Your task to perform on an android device: change timer sound Image 0: 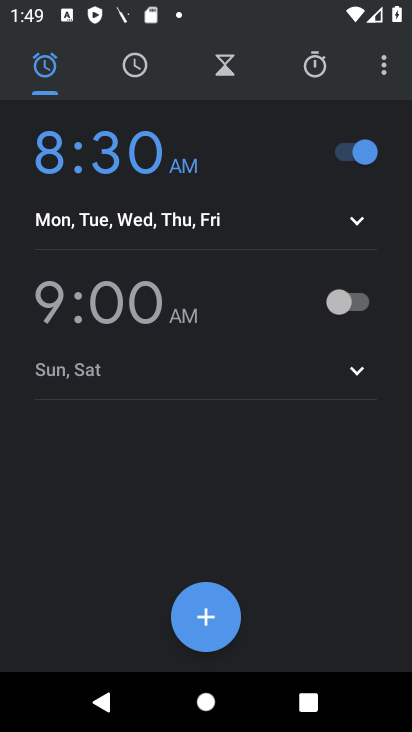
Step 0: click (382, 64)
Your task to perform on an android device: change timer sound Image 1: 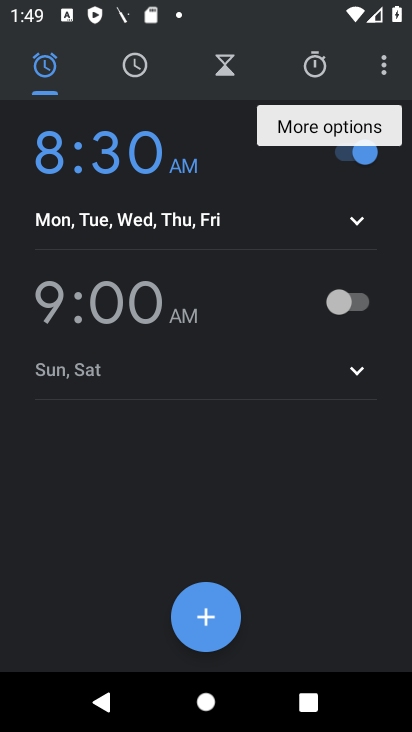
Step 1: click (382, 64)
Your task to perform on an android device: change timer sound Image 2: 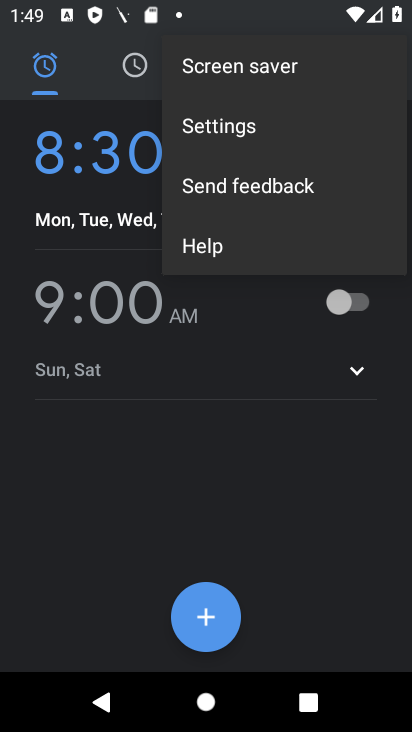
Step 2: click (239, 135)
Your task to perform on an android device: change timer sound Image 3: 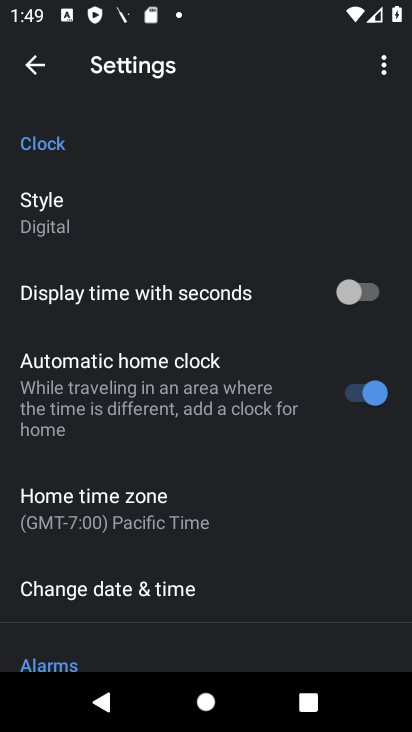
Step 3: drag from (249, 574) to (237, 216)
Your task to perform on an android device: change timer sound Image 4: 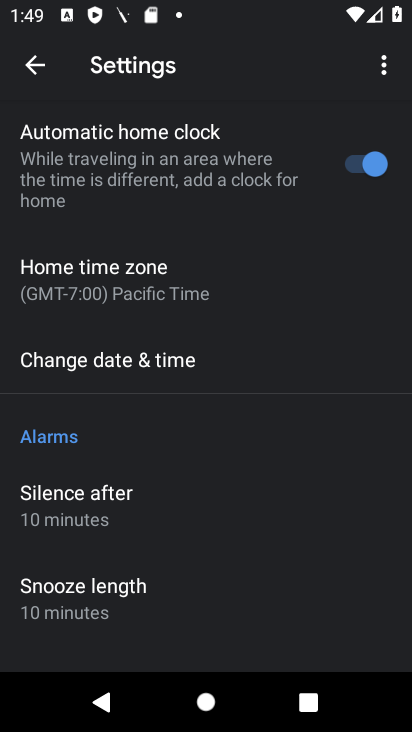
Step 4: drag from (183, 567) to (270, 256)
Your task to perform on an android device: change timer sound Image 5: 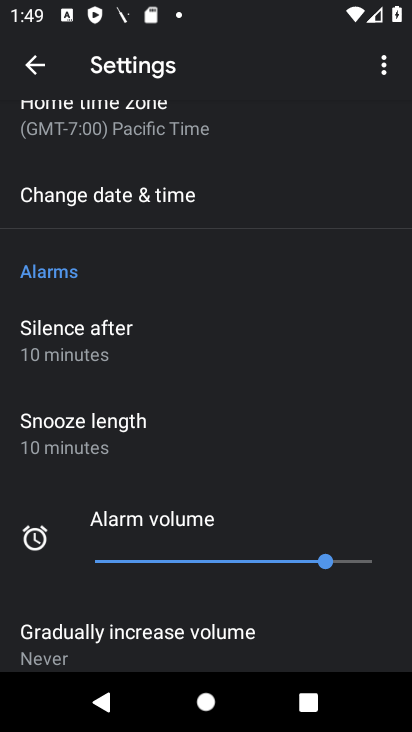
Step 5: drag from (238, 584) to (347, 233)
Your task to perform on an android device: change timer sound Image 6: 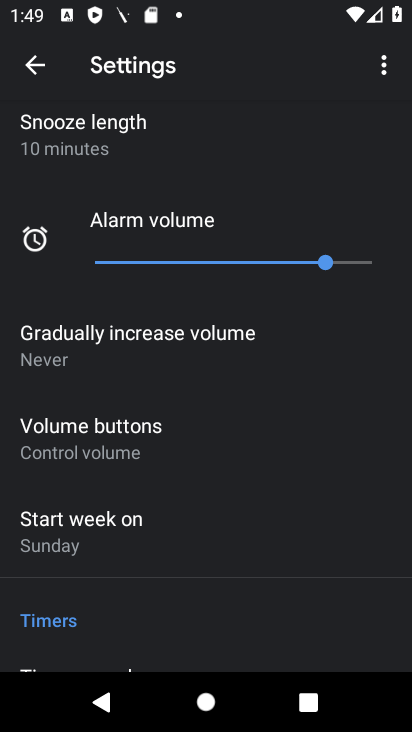
Step 6: drag from (245, 511) to (304, 259)
Your task to perform on an android device: change timer sound Image 7: 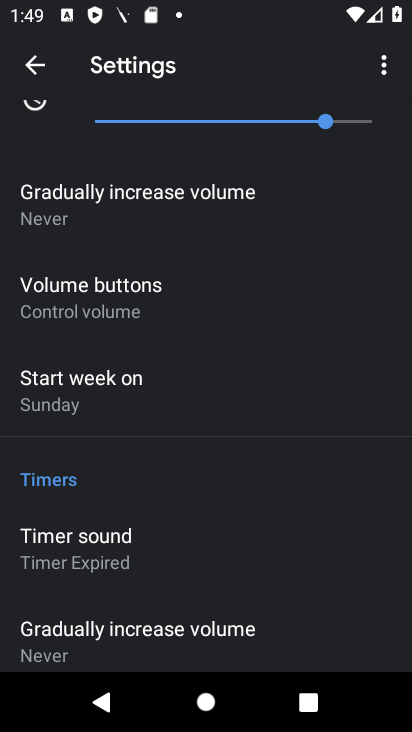
Step 7: click (115, 539)
Your task to perform on an android device: change timer sound Image 8: 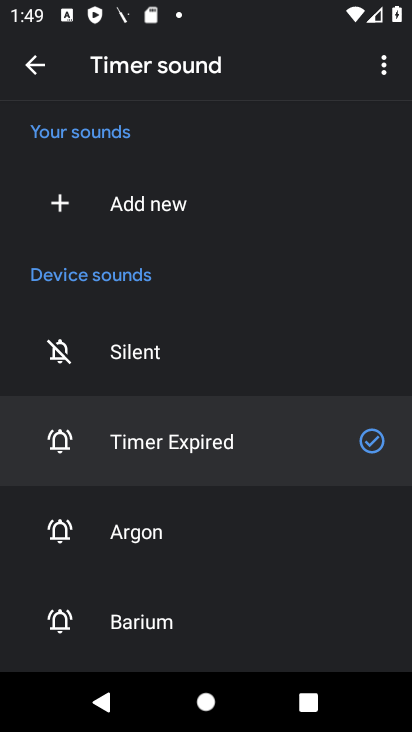
Step 8: click (141, 532)
Your task to perform on an android device: change timer sound Image 9: 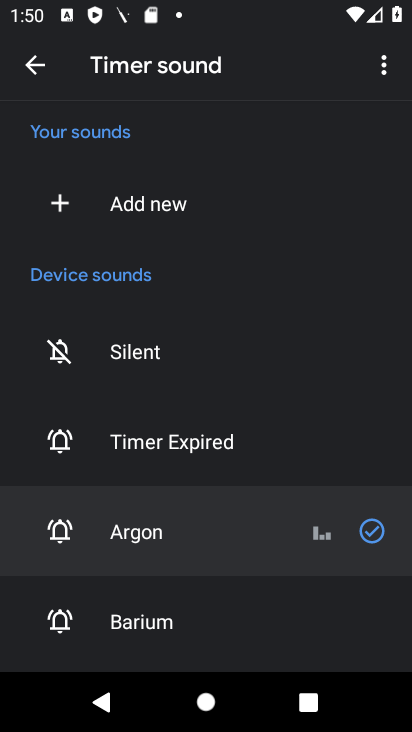
Step 9: task complete